Your task to perform on an android device: see sites visited before in the chrome app Image 0: 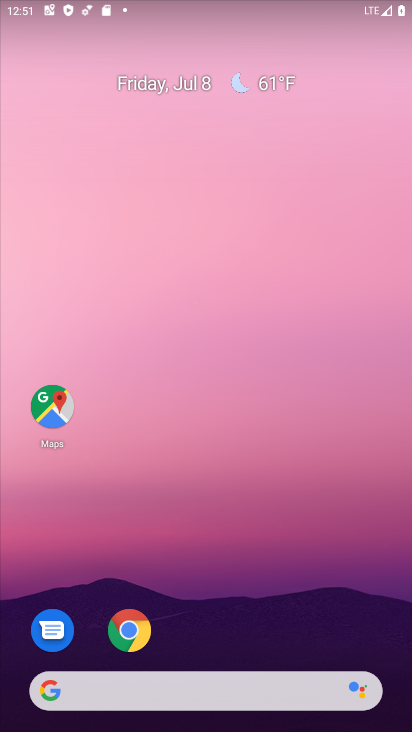
Step 0: drag from (401, 669) to (232, 60)
Your task to perform on an android device: see sites visited before in the chrome app Image 1: 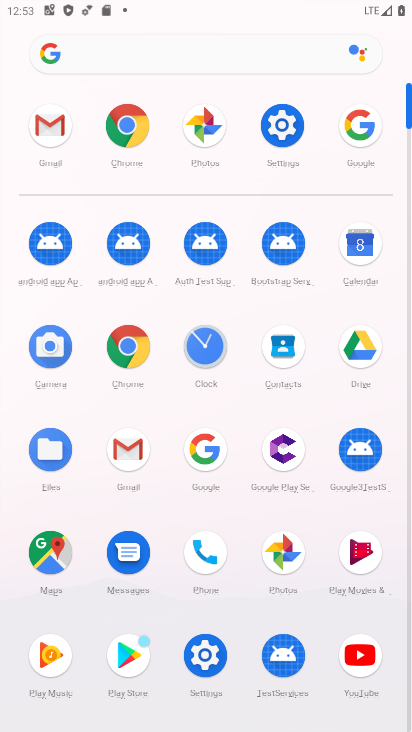
Step 1: click (138, 137)
Your task to perform on an android device: see sites visited before in the chrome app Image 2: 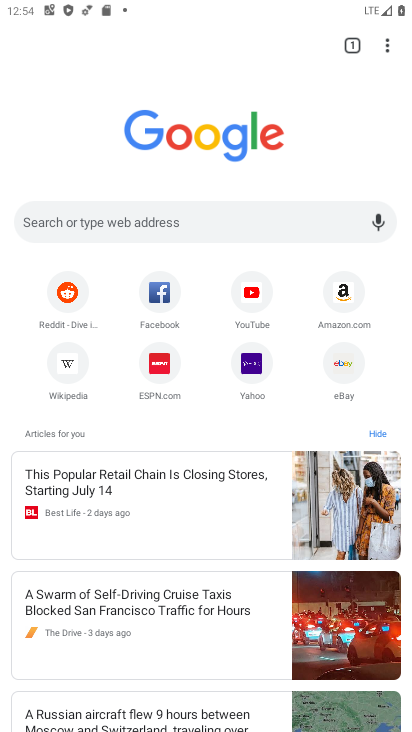
Step 2: task complete